Your task to perform on an android device: uninstall "Contacts" Image 0: 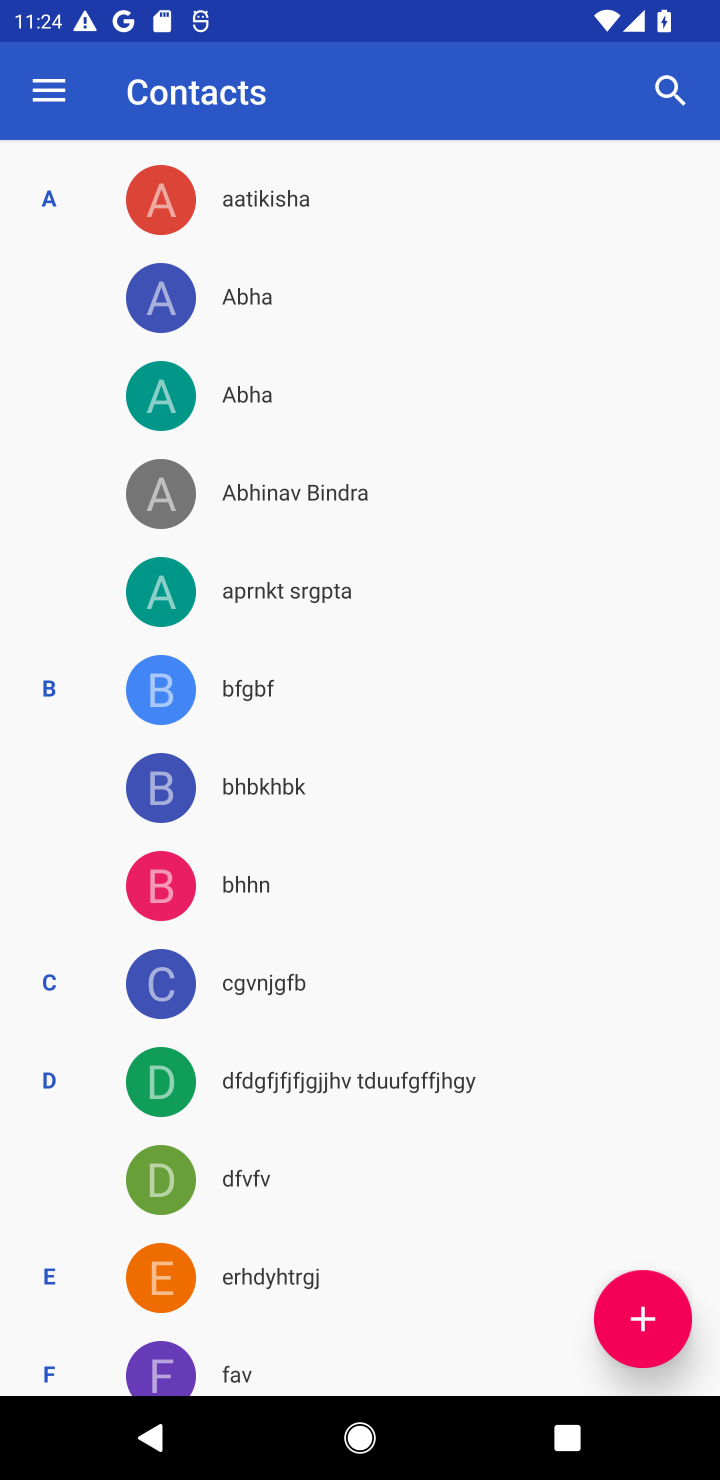
Step 0: press home button
Your task to perform on an android device: uninstall "Contacts" Image 1: 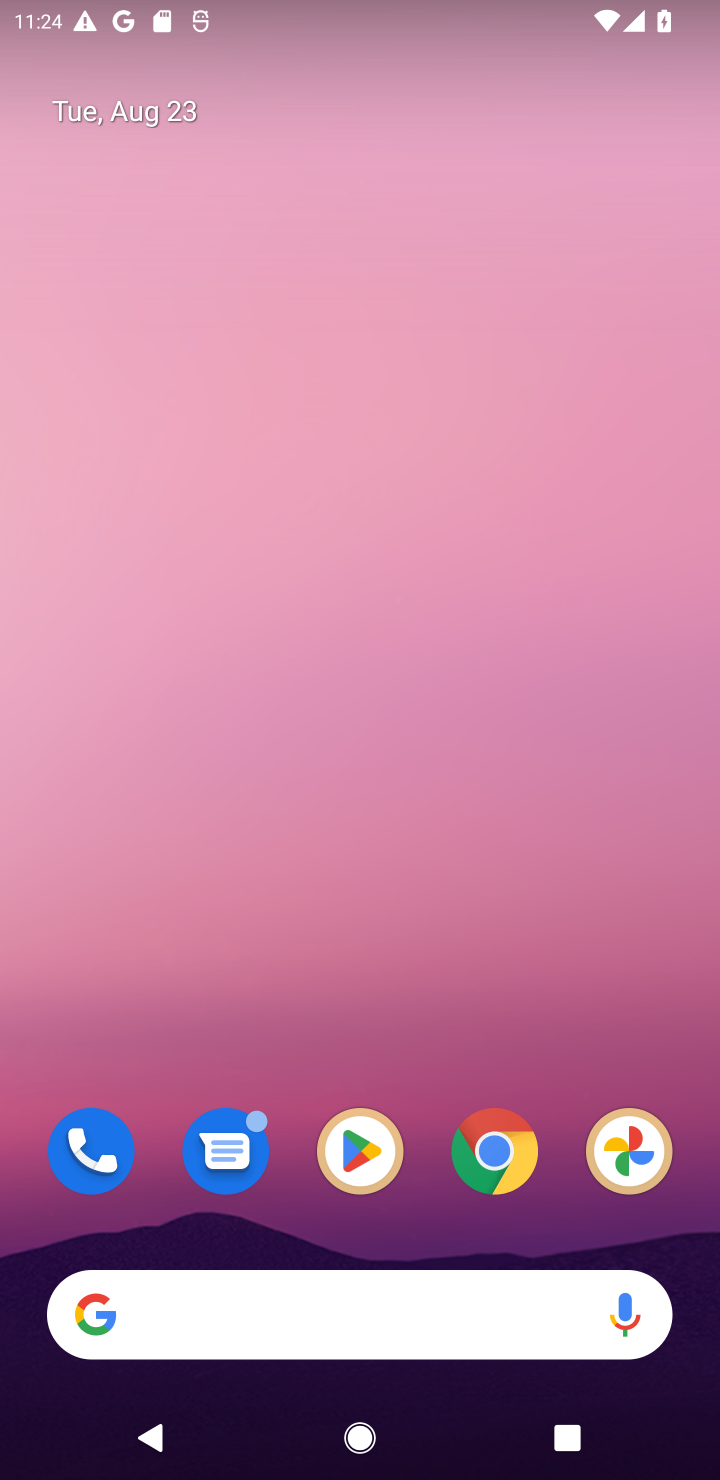
Step 1: click (342, 1156)
Your task to perform on an android device: uninstall "Contacts" Image 2: 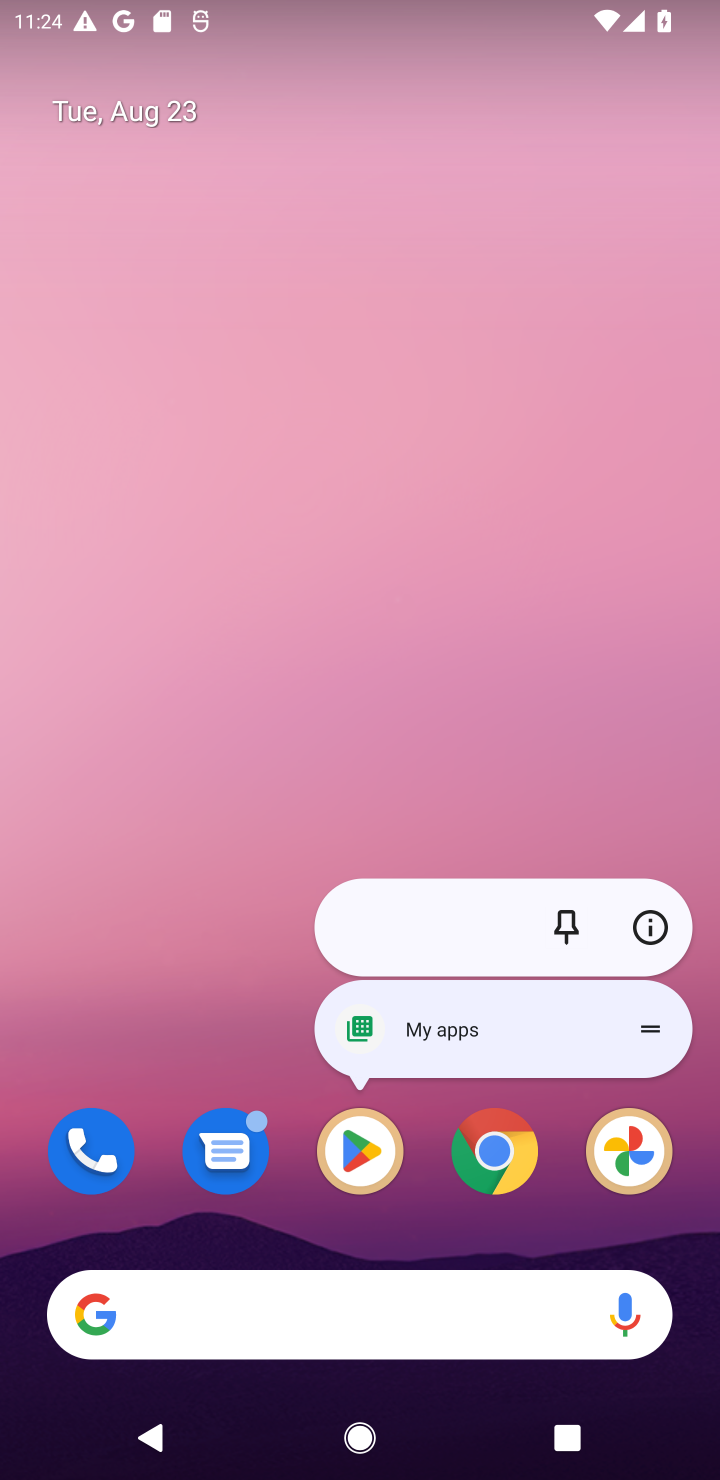
Step 2: click (368, 1139)
Your task to perform on an android device: uninstall "Contacts" Image 3: 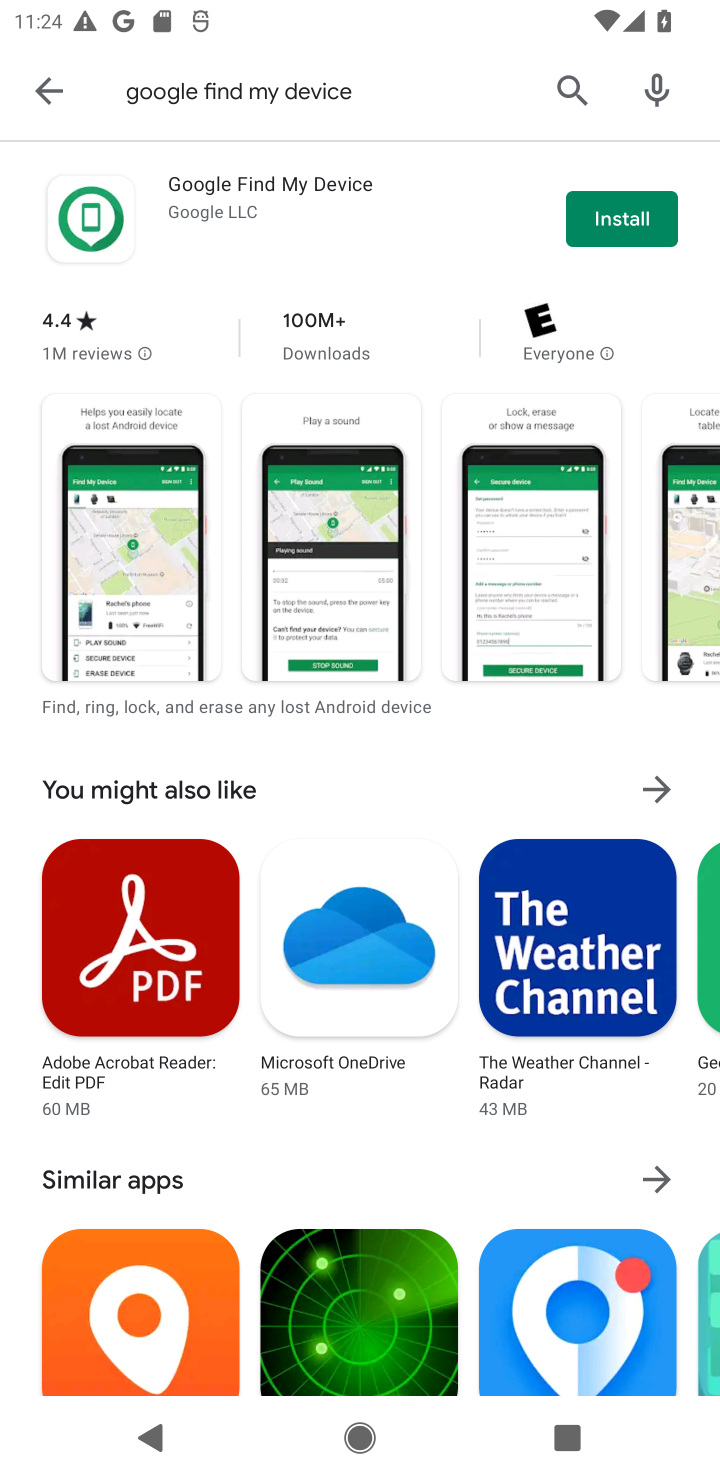
Step 3: click (570, 82)
Your task to perform on an android device: uninstall "Contacts" Image 4: 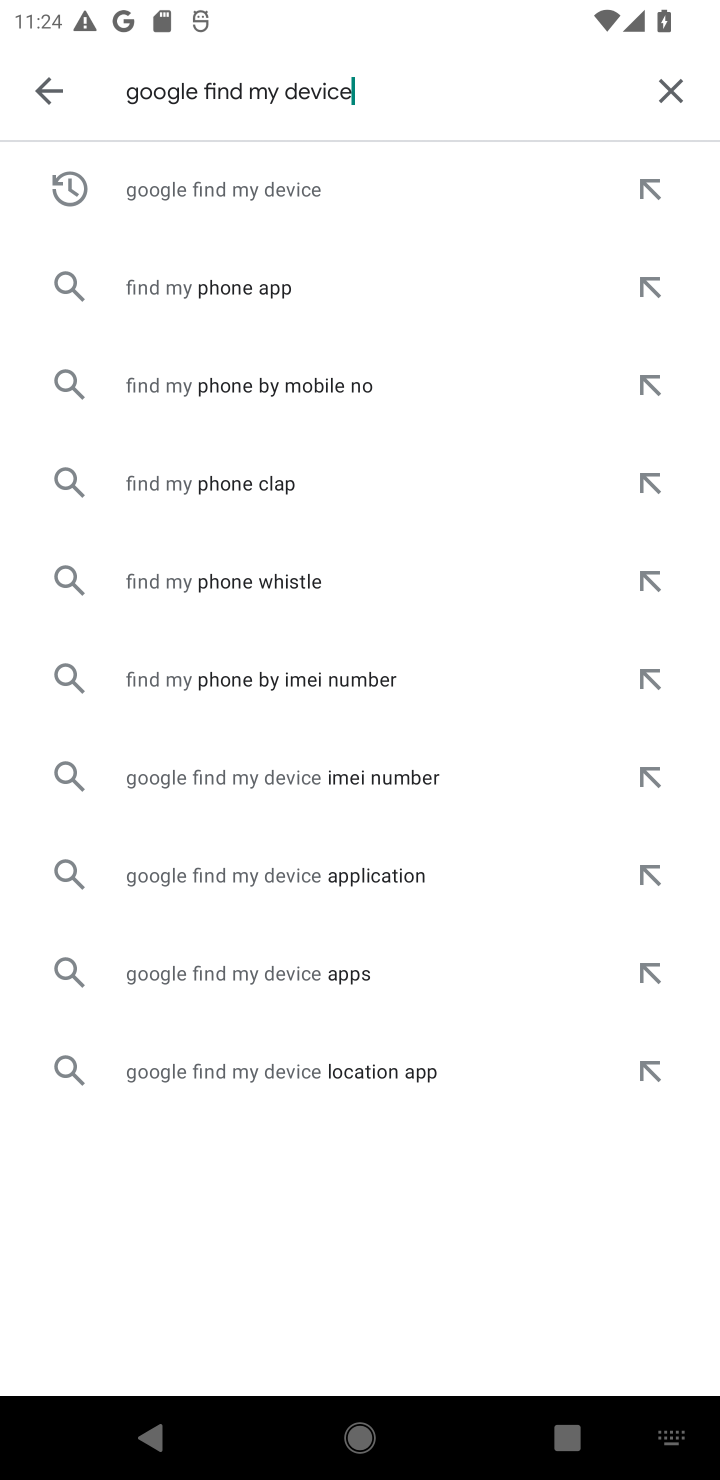
Step 4: click (654, 87)
Your task to perform on an android device: uninstall "Contacts" Image 5: 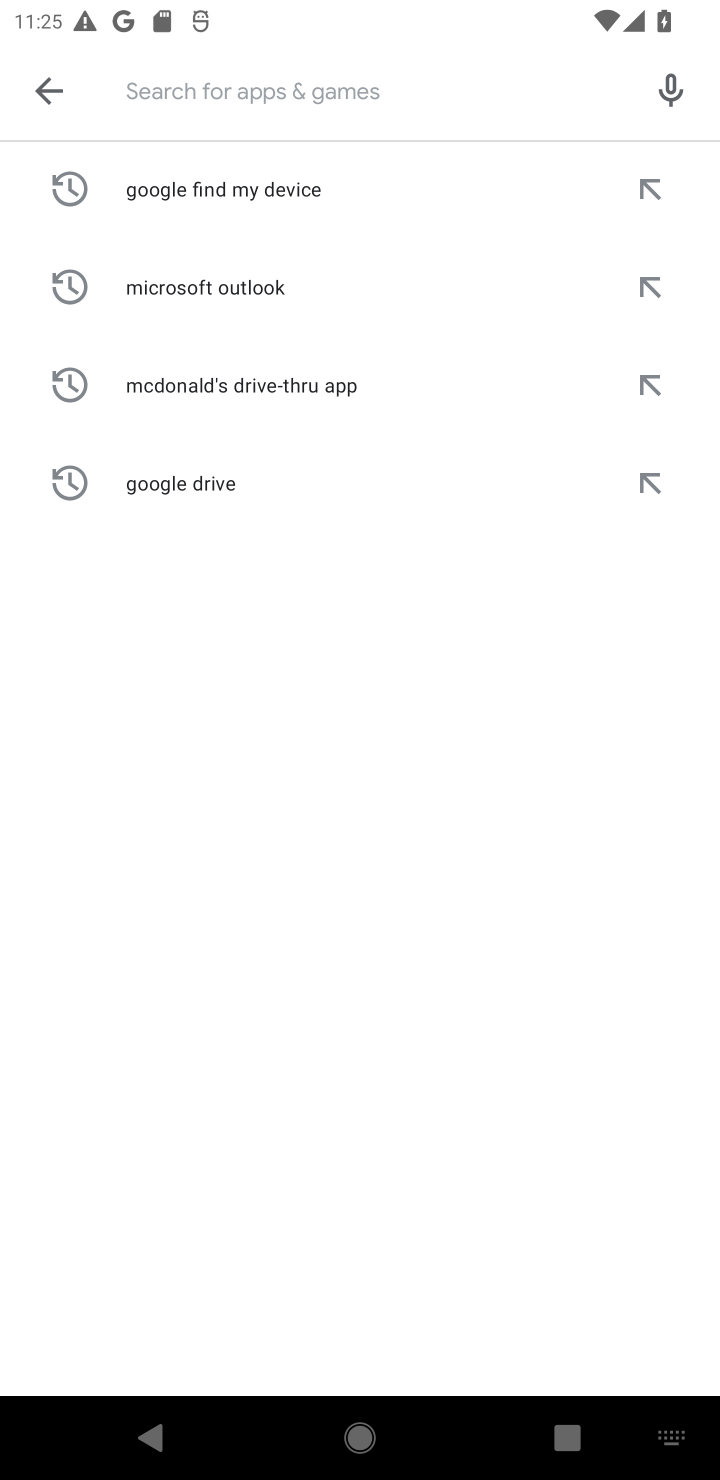
Step 5: type "Contacts"
Your task to perform on an android device: uninstall "Contacts" Image 6: 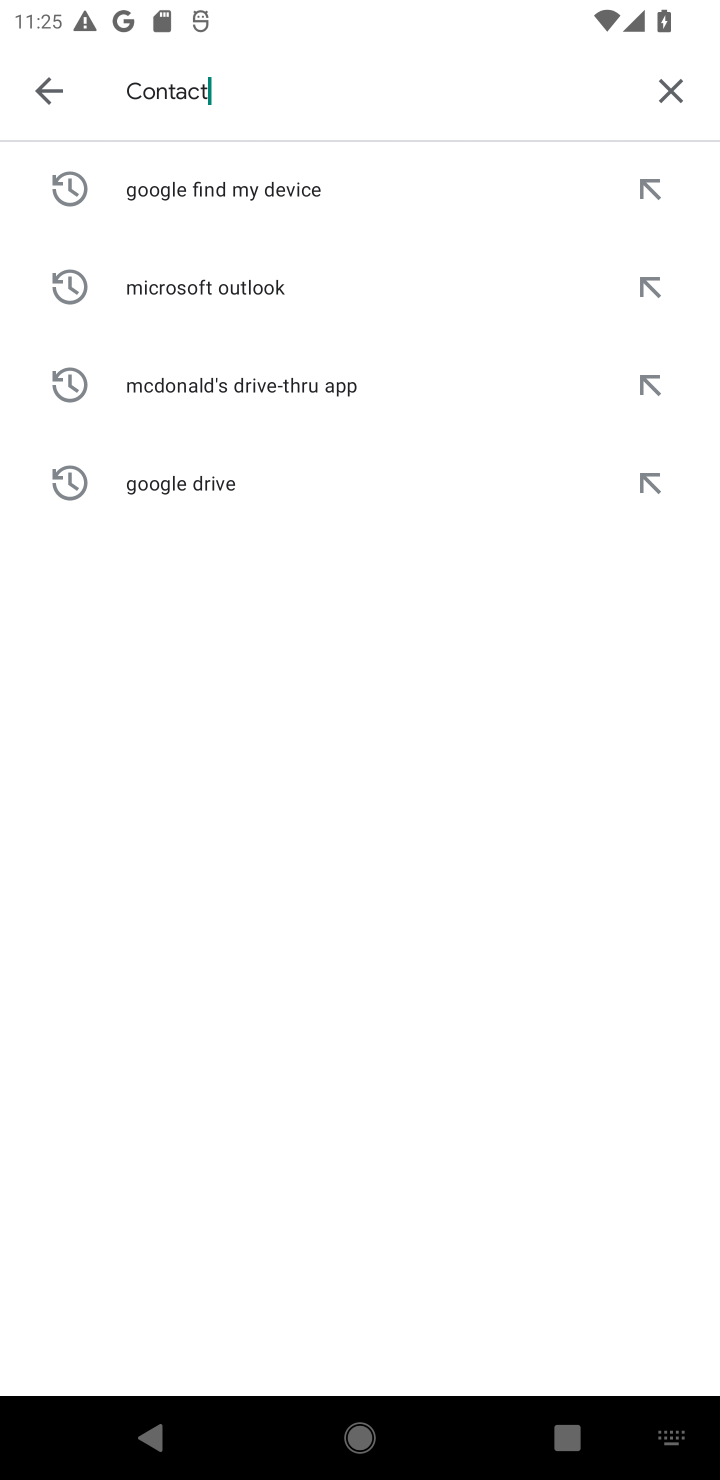
Step 6: type ""
Your task to perform on an android device: uninstall "Contacts" Image 7: 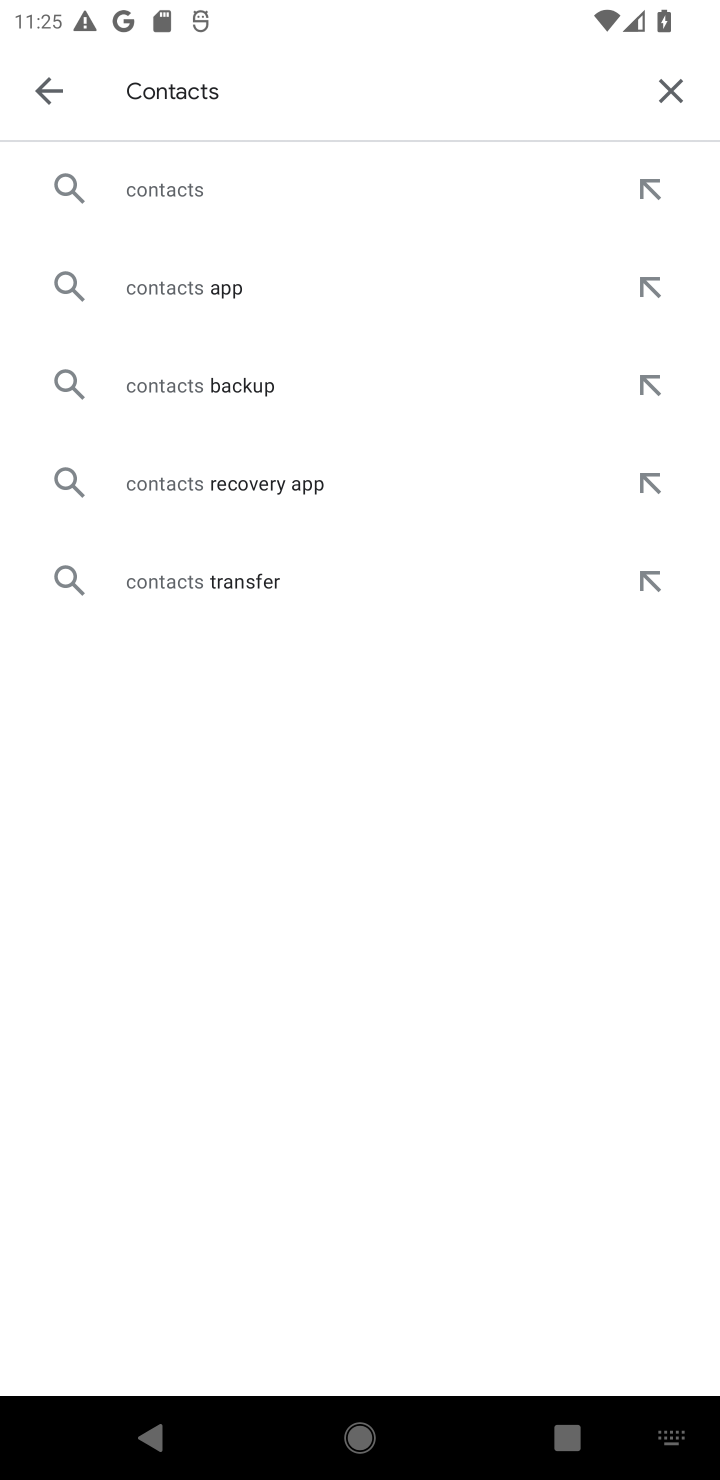
Step 7: click (206, 168)
Your task to perform on an android device: uninstall "Contacts" Image 8: 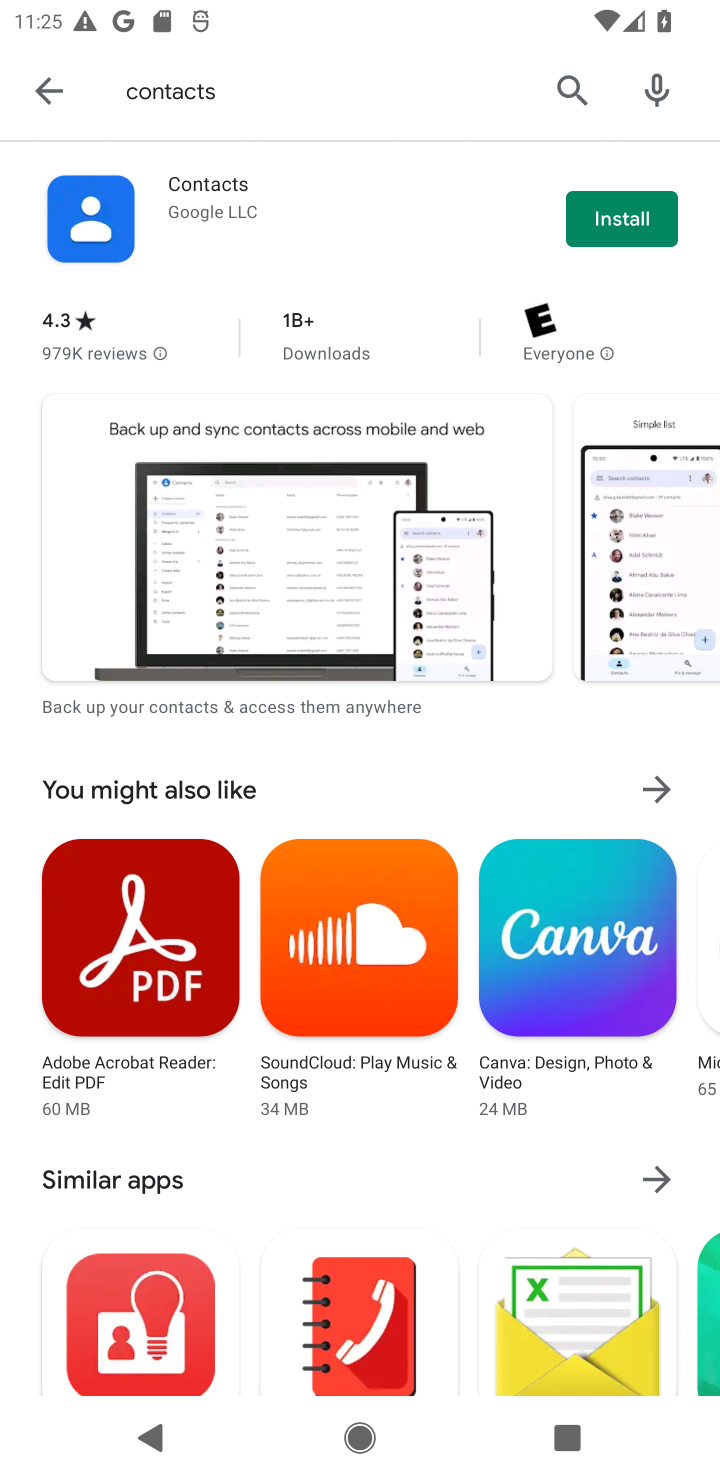
Step 8: task complete